Your task to perform on an android device: turn off sleep mode Image 0: 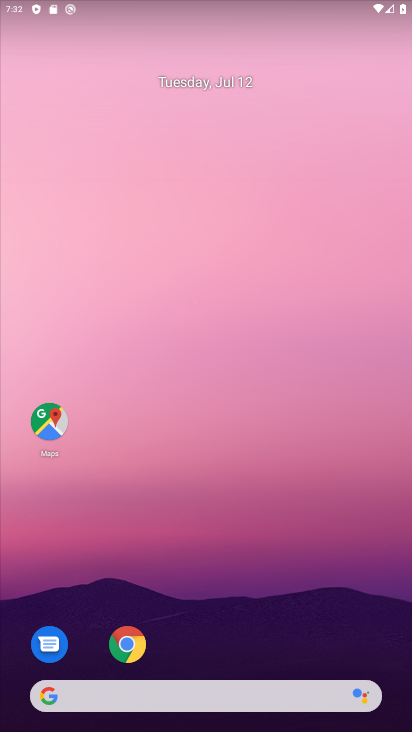
Step 0: drag from (310, 64) to (264, 138)
Your task to perform on an android device: turn off sleep mode Image 1: 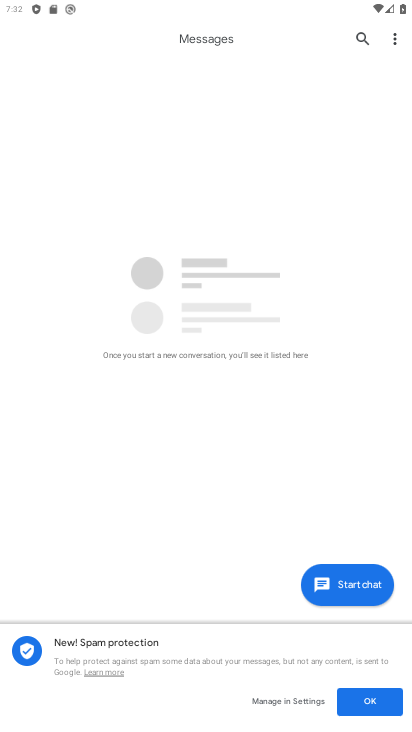
Step 1: press home button
Your task to perform on an android device: turn off sleep mode Image 2: 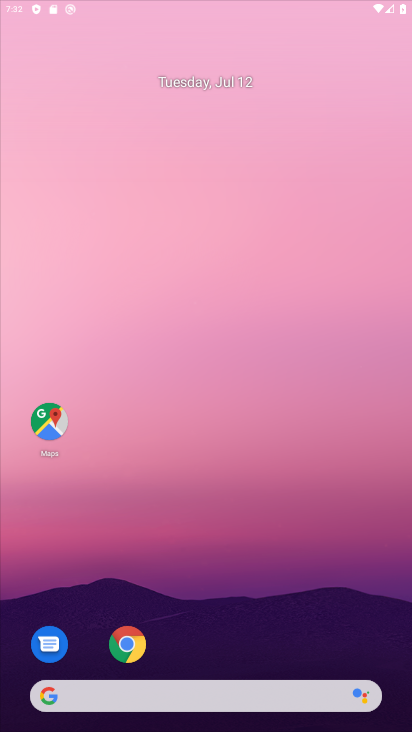
Step 2: drag from (181, 310) to (155, 1)
Your task to perform on an android device: turn off sleep mode Image 3: 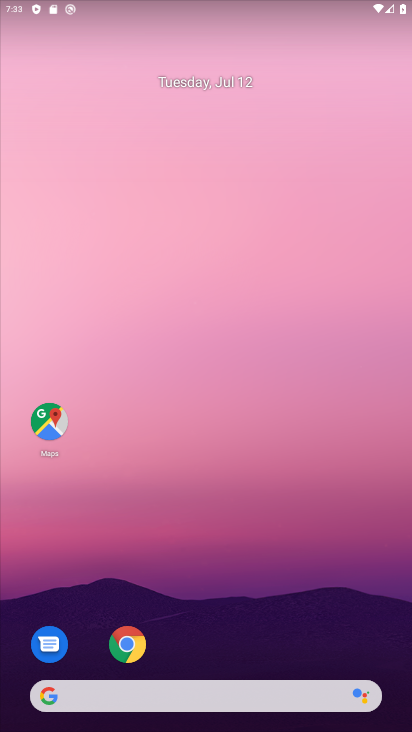
Step 3: drag from (204, 591) to (231, 49)
Your task to perform on an android device: turn off sleep mode Image 4: 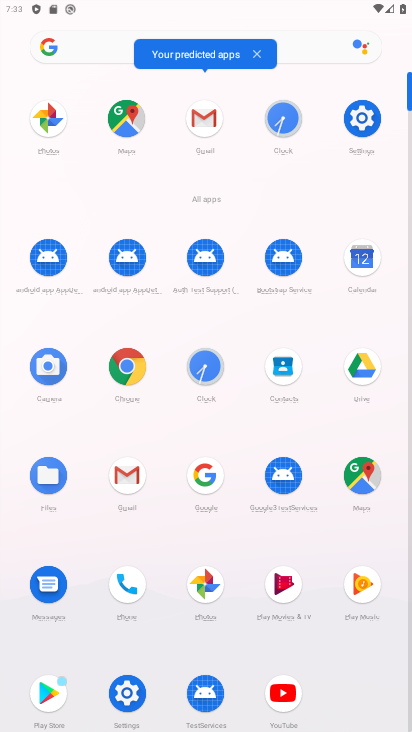
Step 4: click (358, 99)
Your task to perform on an android device: turn off sleep mode Image 5: 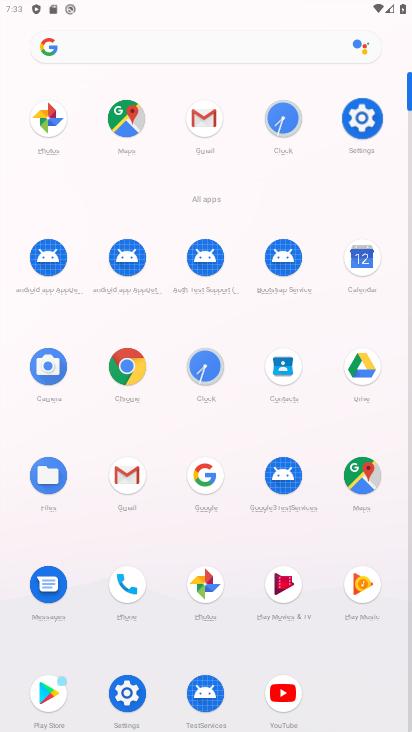
Step 5: click (358, 99)
Your task to perform on an android device: turn off sleep mode Image 6: 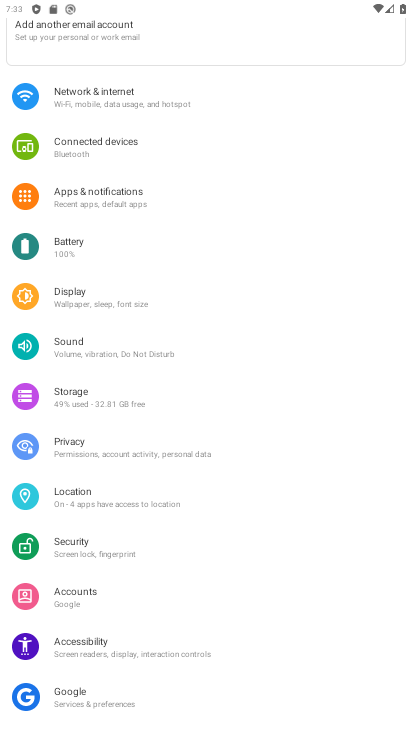
Step 6: drag from (196, 551) to (259, 167)
Your task to perform on an android device: turn off sleep mode Image 7: 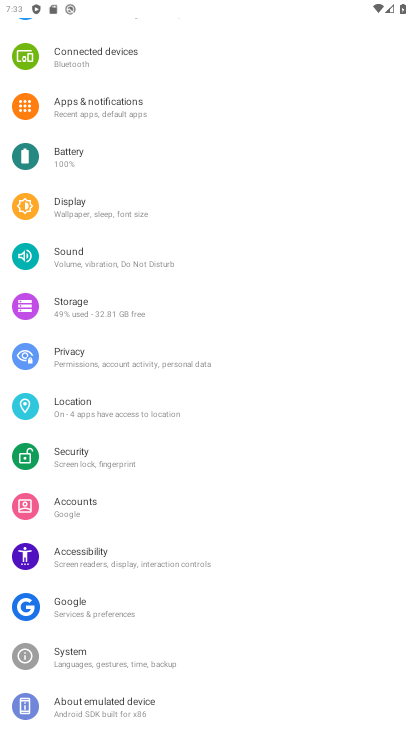
Step 7: click (88, 208)
Your task to perform on an android device: turn off sleep mode Image 8: 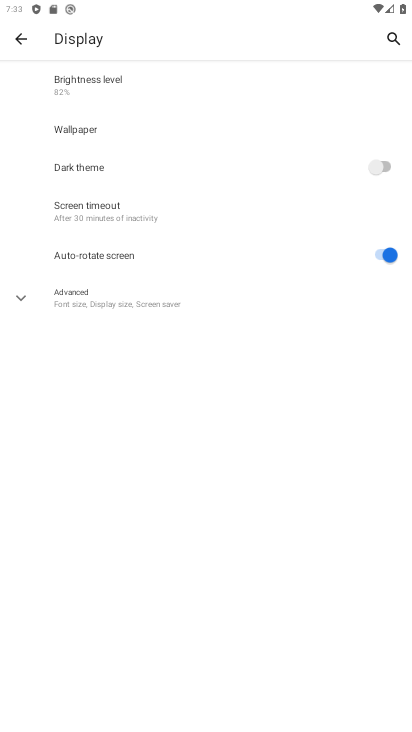
Step 8: click (158, 212)
Your task to perform on an android device: turn off sleep mode Image 9: 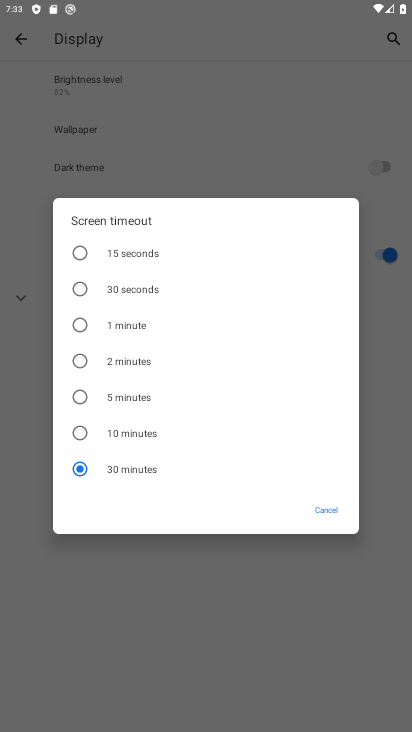
Step 9: task complete